Your task to perform on an android device: open a bookmark in the chrome app Image 0: 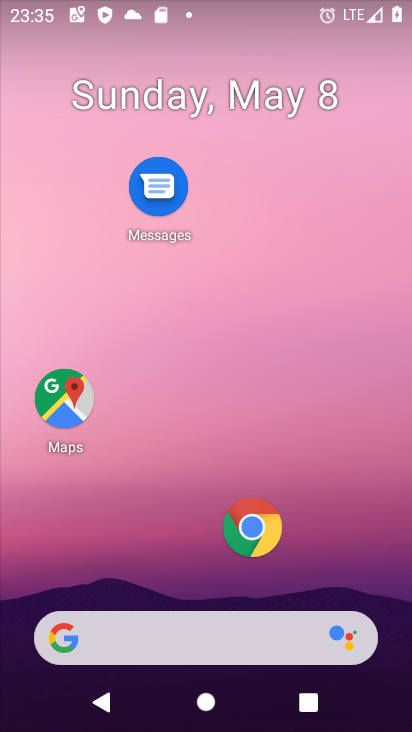
Step 0: click (251, 524)
Your task to perform on an android device: open a bookmark in the chrome app Image 1: 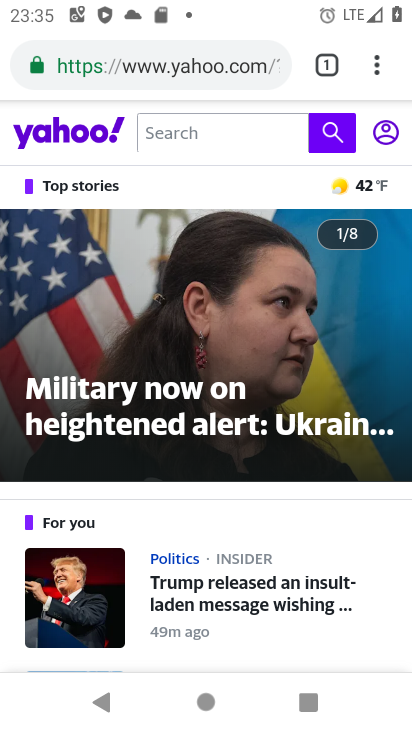
Step 1: click (368, 68)
Your task to perform on an android device: open a bookmark in the chrome app Image 2: 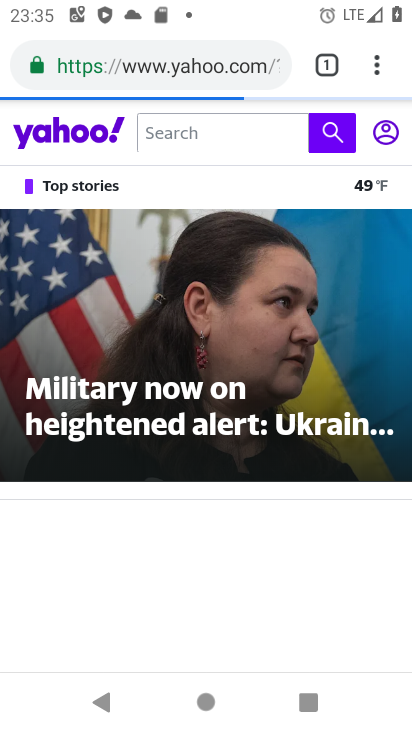
Step 2: click (372, 61)
Your task to perform on an android device: open a bookmark in the chrome app Image 3: 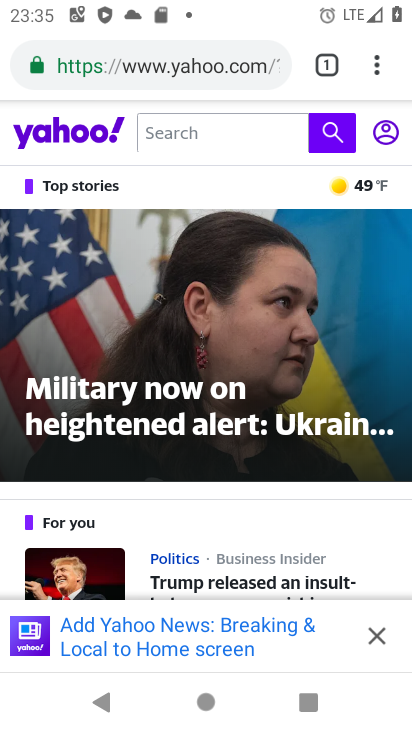
Step 3: click (372, 61)
Your task to perform on an android device: open a bookmark in the chrome app Image 4: 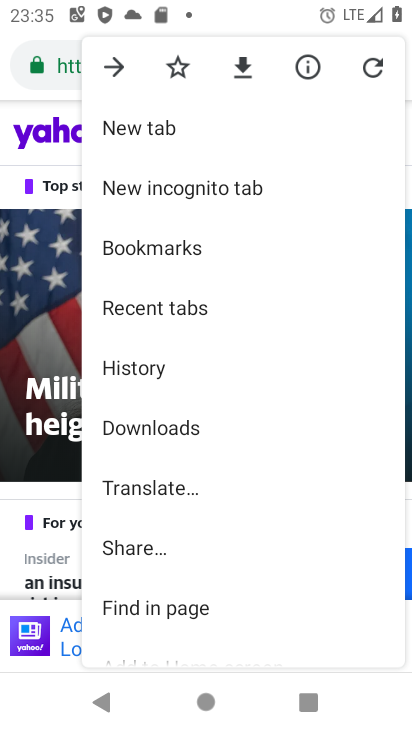
Step 4: click (185, 246)
Your task to perform on an android device: open a bookmark in the chrome app Image 5: 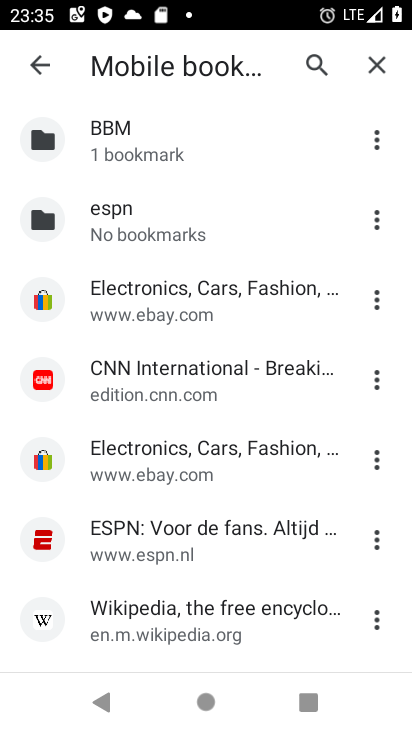
Step 5: drag from (217, 478) to (216, 154)
Your task to perform on an android device: open a bookmark in the chrome app Image 6: 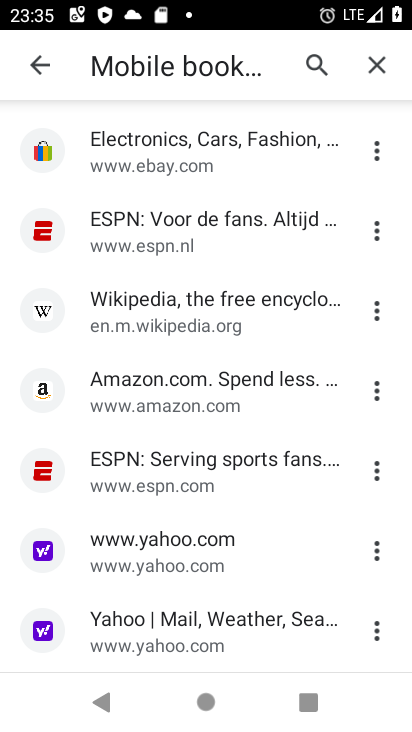
Step 6: click (136, 388)
Your task to perform on an android device: open a bookmark in the chrome app Image 7: 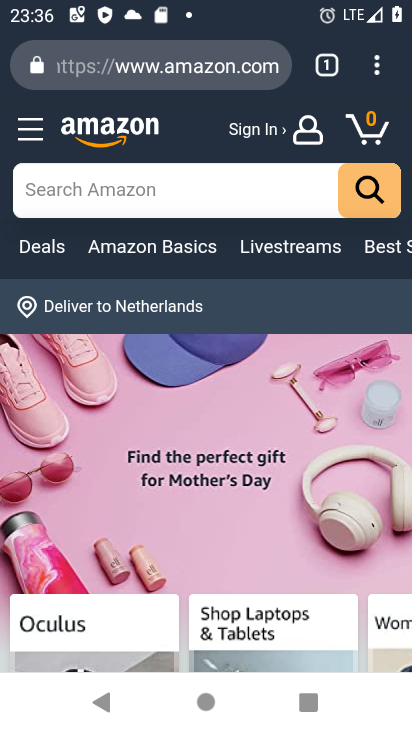
Step 7: task complete